Your task to perform on an android device: Open Chrome and go to settings Image 0: 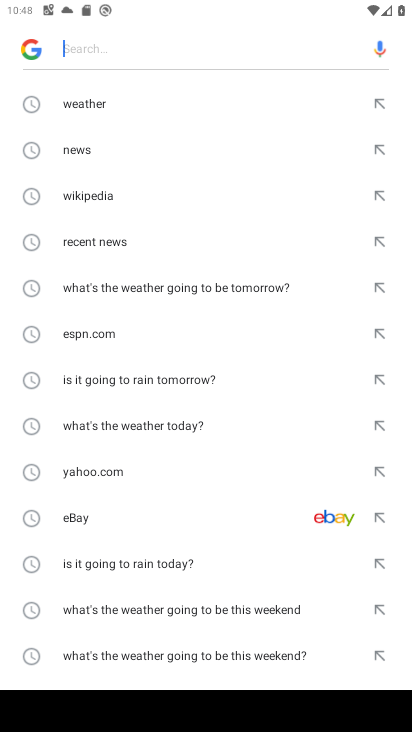
Step 0: press home button
Your task to perform on an android device: Open Chrome and go to settings Image 1: 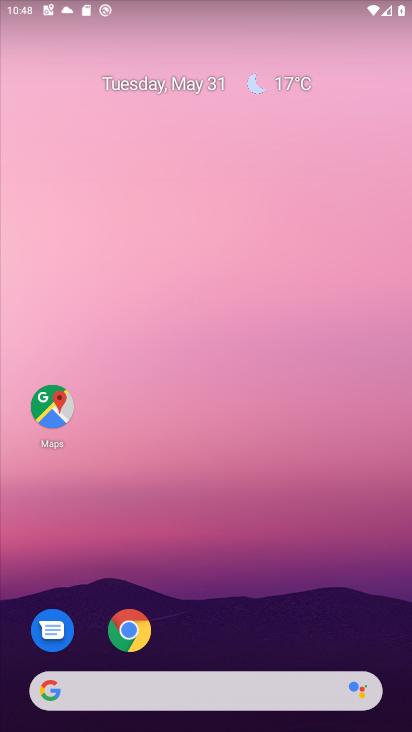
Step 1: drag from (300, 531) to (220, 96)
Your task to perform on an android device: Open Chrome and go to settings Image 2: 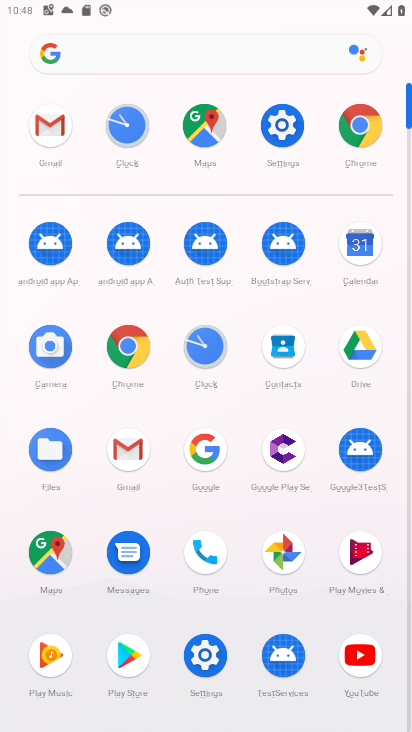
Step 2: click (361, 125)
Your task to perform on an android device: Open Chrome and go to settings Image 3: 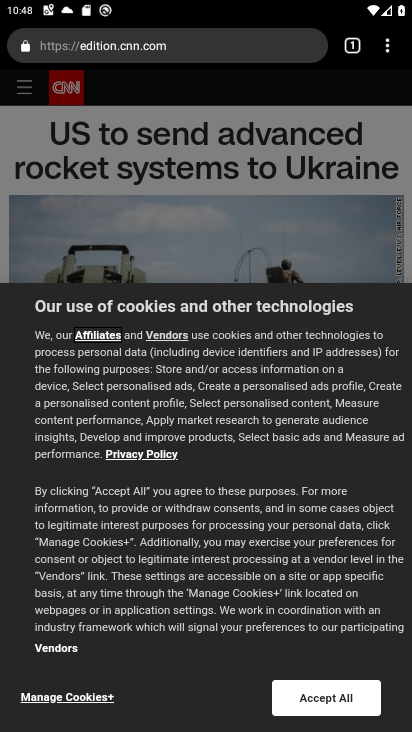
Step 3: click (387, 44)
Your task to perform on an android device: Open Chrome and go to settings Image 4: 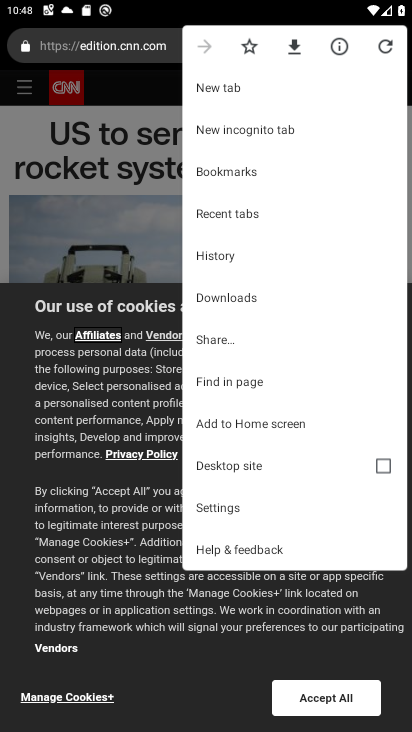
Step 4: click (246, 503)
Your task to perform on an android device: Open Chrome and go to settings Image 5: 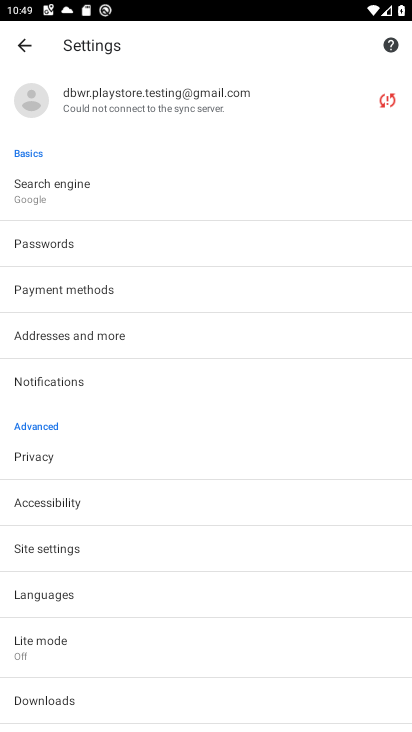
Step 5: task complete